Your task to perform on an android device: check battery use Image 0: 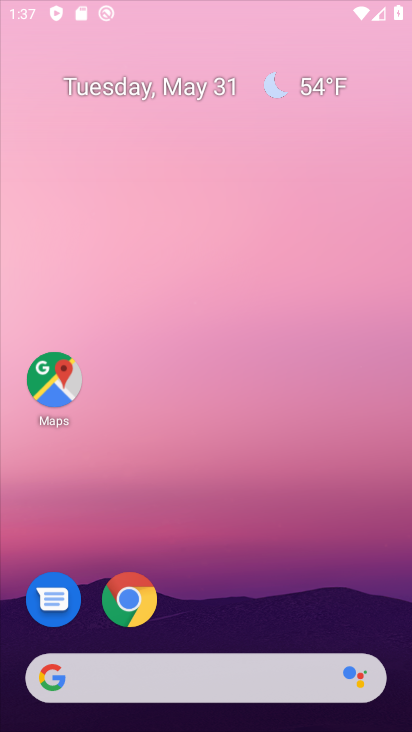
Step 0: click (230, 120)
Your task to perform on an android device: check battery use Image 1: 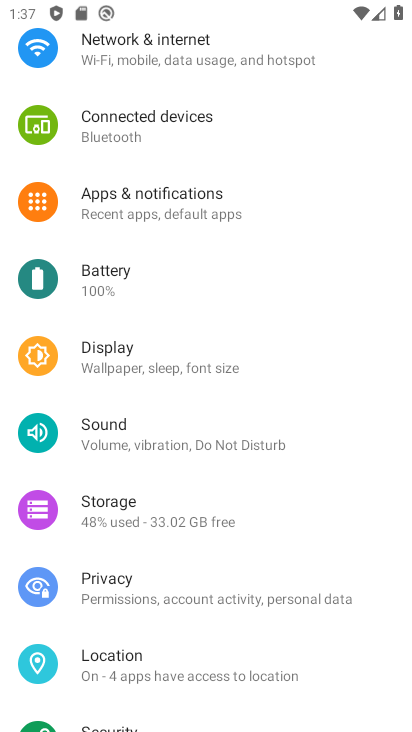
Step 1: click (148, 285)
Your task to perform on an android device: check battery use Image 2: 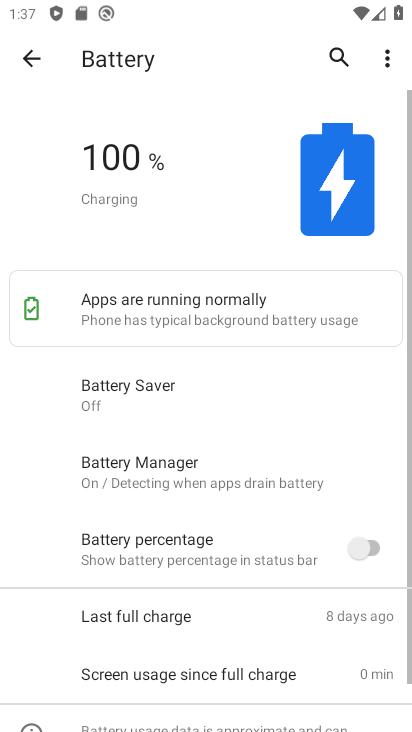
Step 2: click (388, 51)
Your task to perform on an android device: check battery use Image 3: 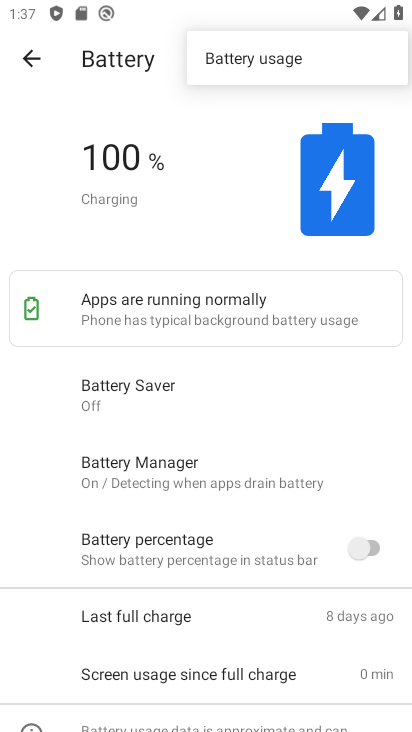
Step 3: click (302, 56)
Your task to perform on an android device: check battery use Image 4: 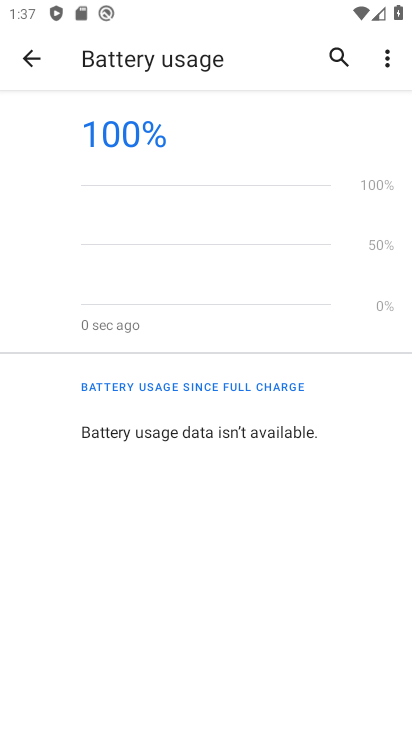
Step 4: task complete